Your task to perform on an android device: Go to ESPN.com Image 0: 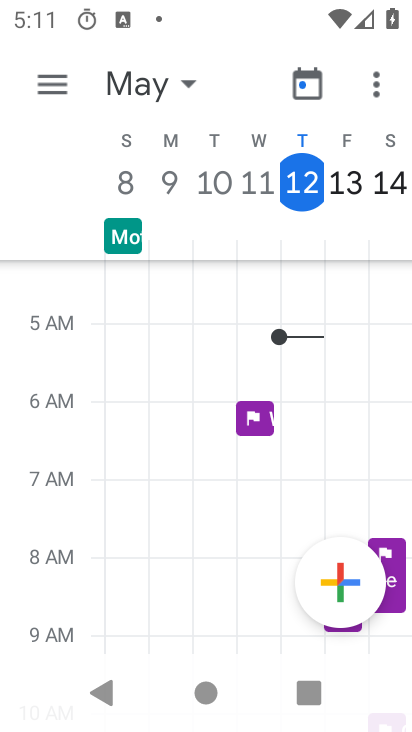
Step 0: press home button
Your task to perform on an android device: Go to ESPN.com Image 1: 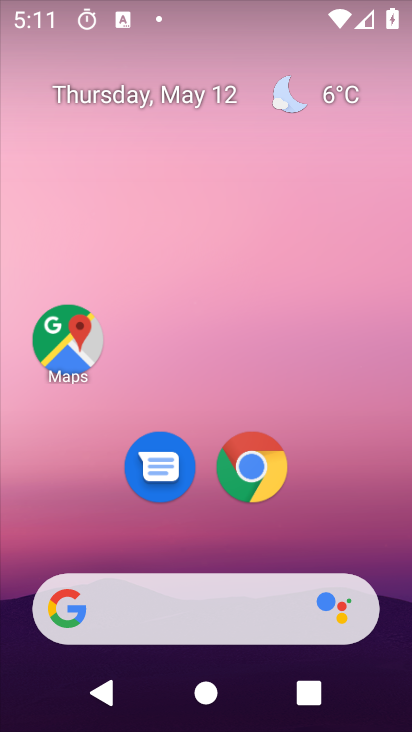
Step 1: drag from (131, 582) to (175, 87)
Your task to perform on an android device: Go to ESPN.com Image 2: 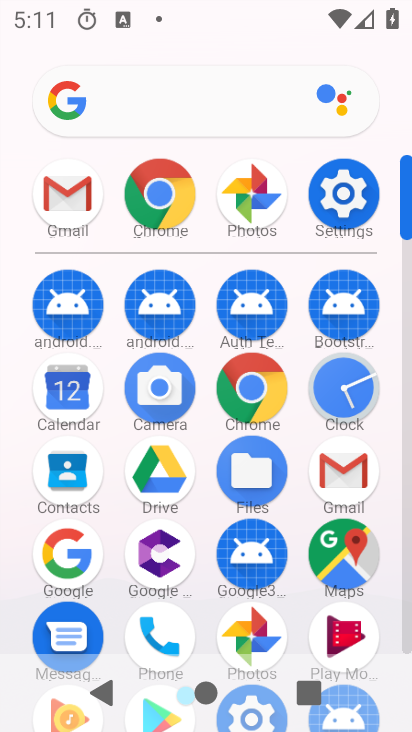
Step 2: click (259, 386)
Your task to perform on an android device: Go to ESPN.com Image 3: 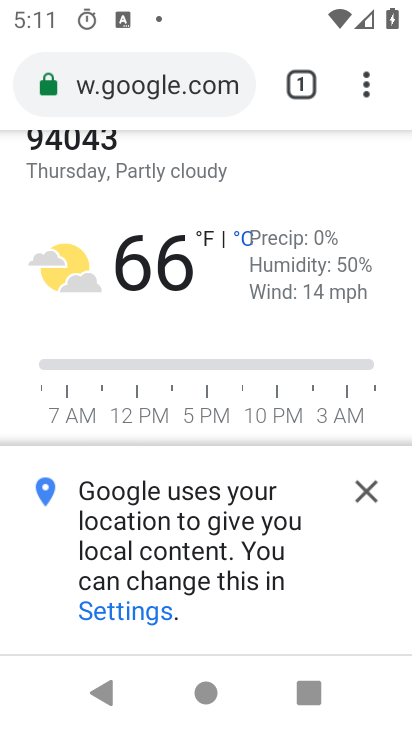
Step 3: click (237, 88)
Your task to perform on an android device: Go to ESPN.com Image 4: 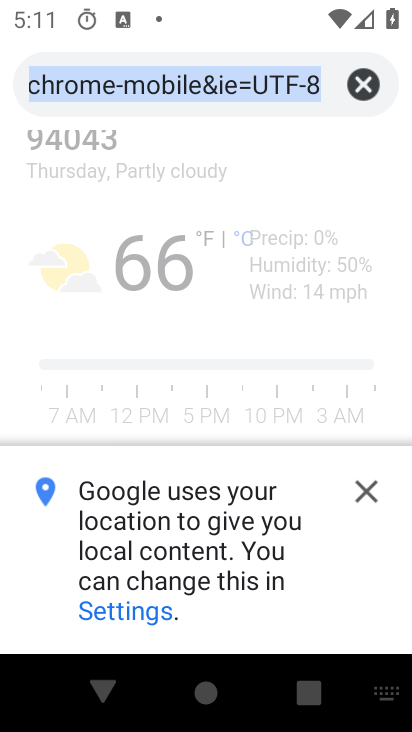
Step 4: click (356, 89)
Your task to perform on an android device: Go to ESPN.com Image 5: 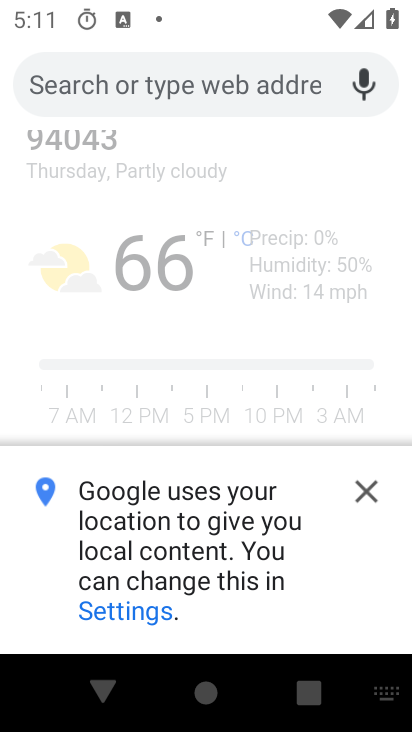
Step 5: type "espn.com"
Your task to perform on an android device: Go to ESPN.com Image 6: 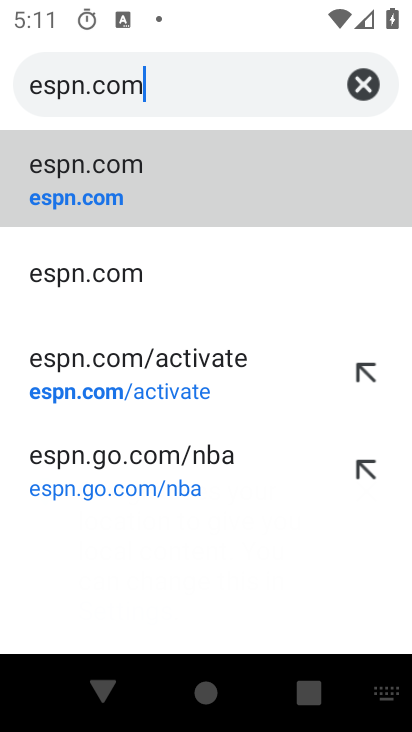
Step 6: click (215, 194)
Your task to perform on an android device: Go to ESPN.com Image 7: 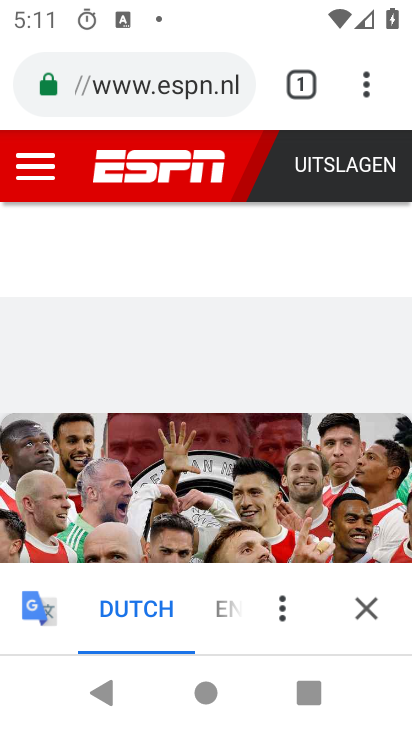
Step 7: task complete